Your task to perform on an android device: open chrome privacy settings Image 0: 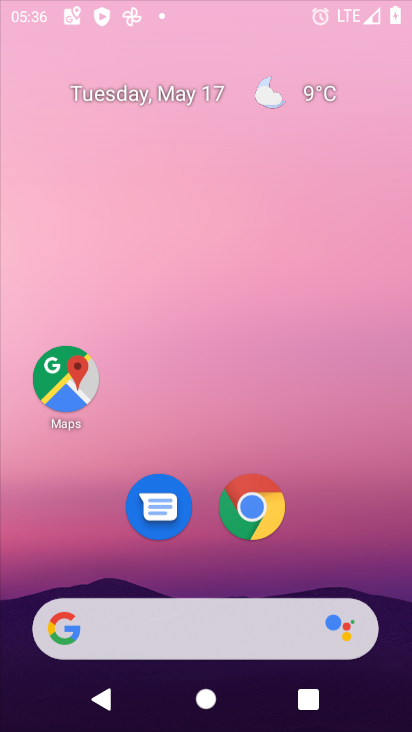
Step 0: click (222, 99)
Your task to perform on an android device: open chrome privacy settings Image 1: 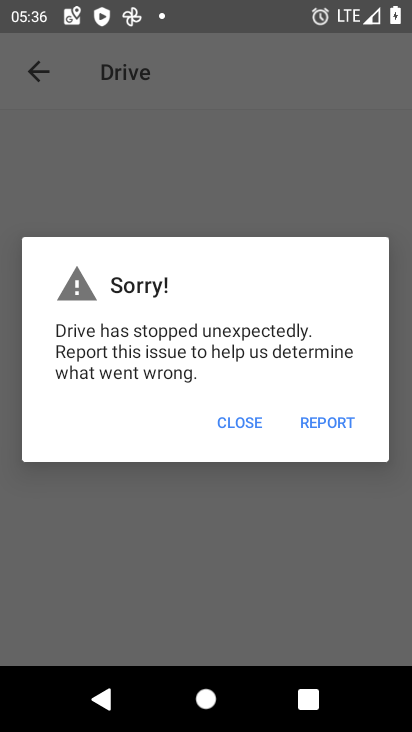
Step 1: press home button
Your task to perform on an android device: open chrome privacy settings Image 2: 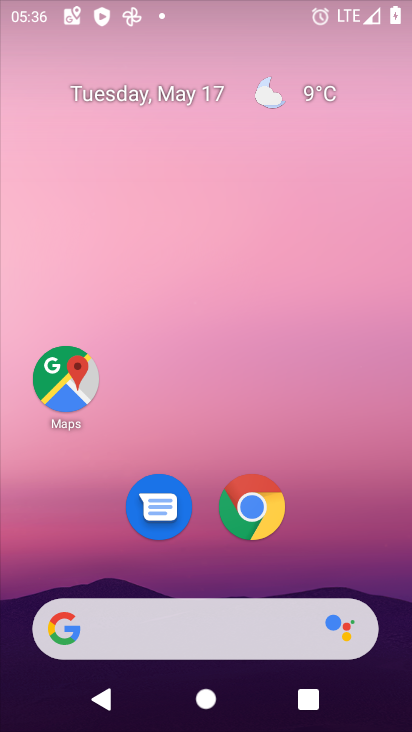
Step 2: click (249, 508)
Your task to perform on an android device: open chrome privacy settings Image 3: 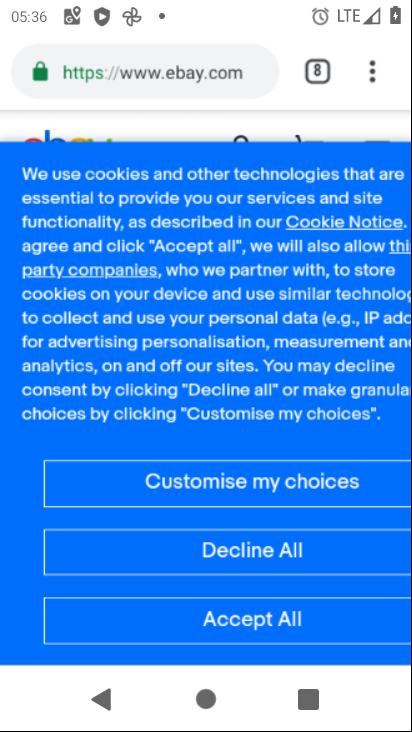
Step 3: click (374, 59)
Your task to perform on an android device: open chrome privacy settings Image 4: 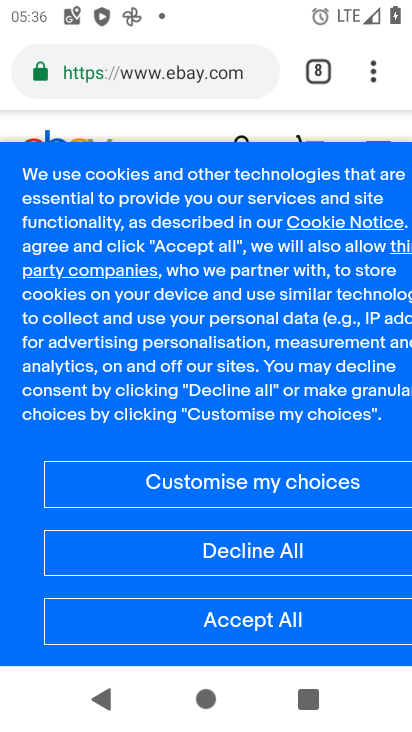
Step 4: click (378, 80)
Your task to perform on an android device: open chrome privacy settings Image 5: 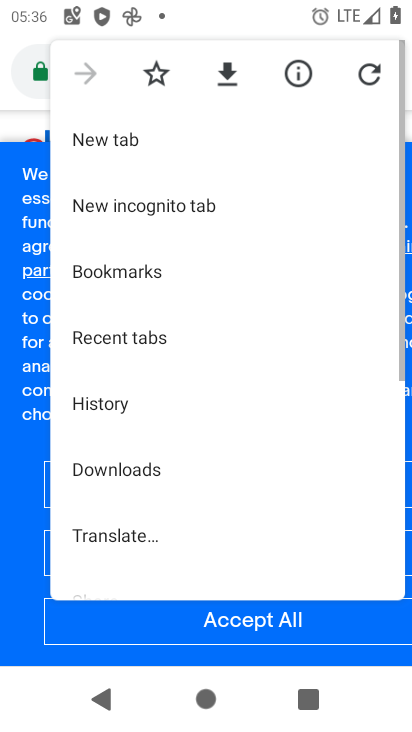
Step 5: drag from (188, 497) to (165, 113)
Your task to perform on an android device: open chrome privacy settings Image 6: 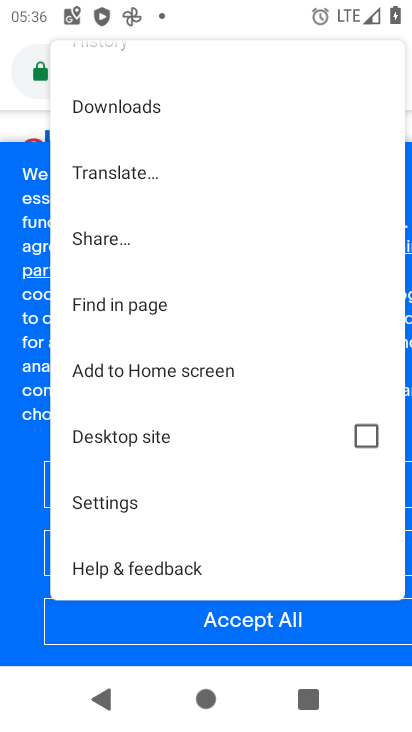
Step 6: click (168, 507)
Your task to perform on an android device: open chrome privacy settings Image 7: 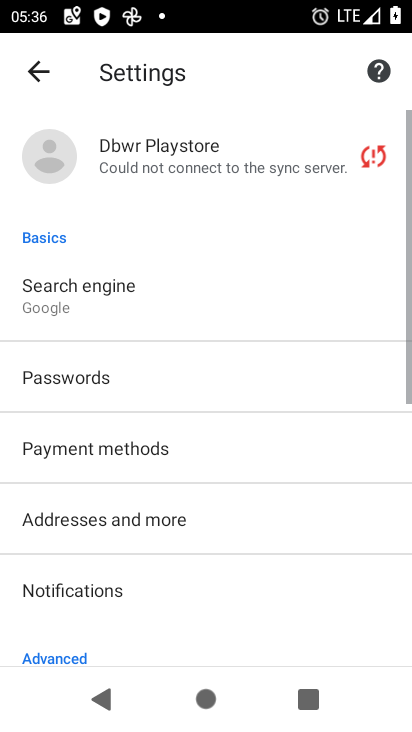
Step 7: drag from (163, 540) to (108, 239)
Your task to perform on an android device: open chrome privacy settings Image 8: 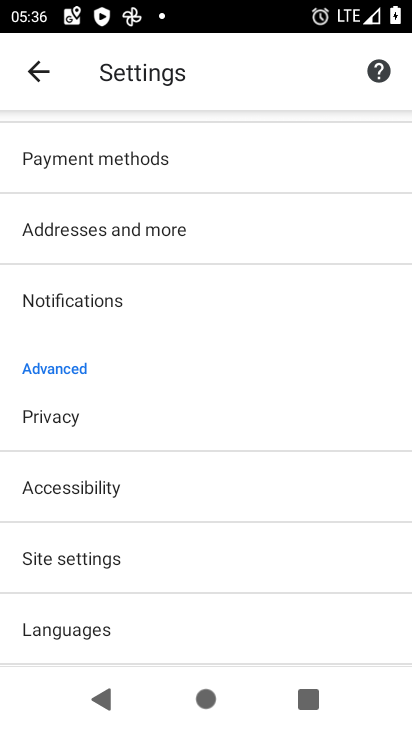
Step 8: click (81, 420)
Your task to perform on an android device: open chrome privacy settings Image 9: 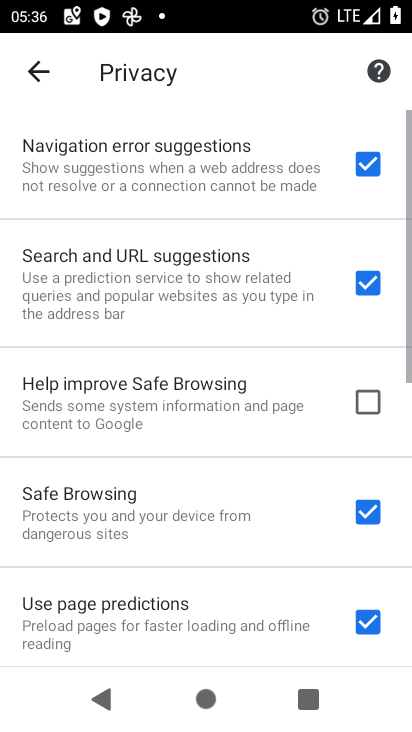
Step 9: task complete